Your task to perform on an android device: set an alarm Image 0: 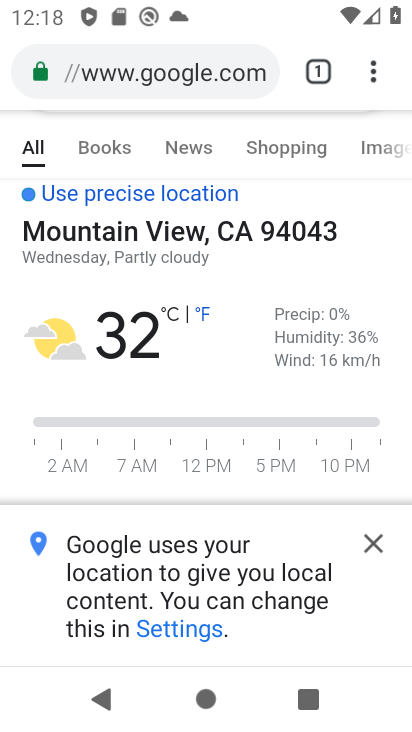
Step 0: press home button
Your task to perform on an android device: set an alarm Image 1: 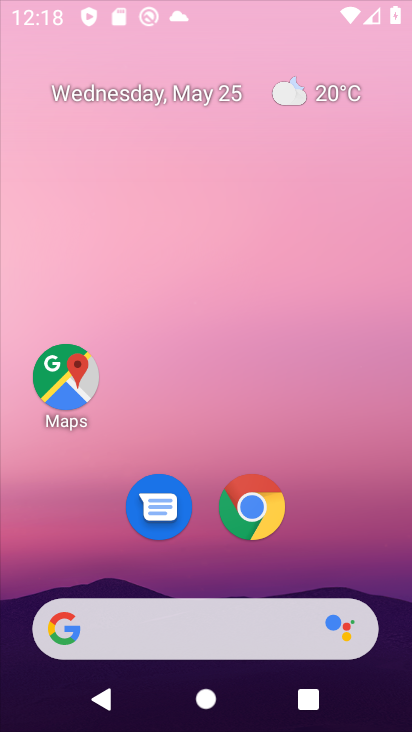
Step 1: click (311, 188)
Your task to perform on an android device: set an alarm Image 2: 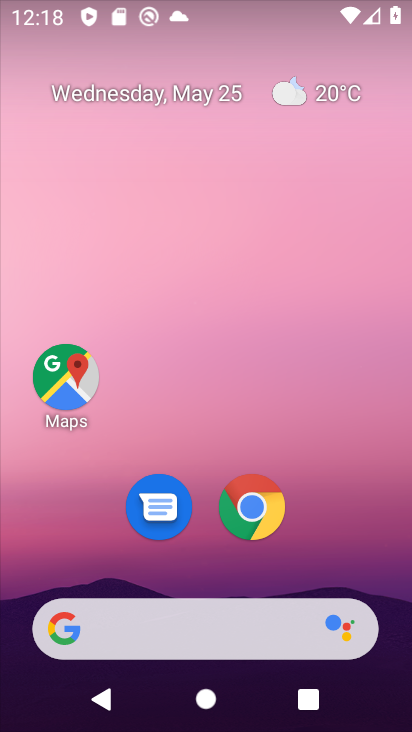
Step 2: drag from (371, 587) to (300, 176)
Your task to perform on an android device: set an alarm Image 3: 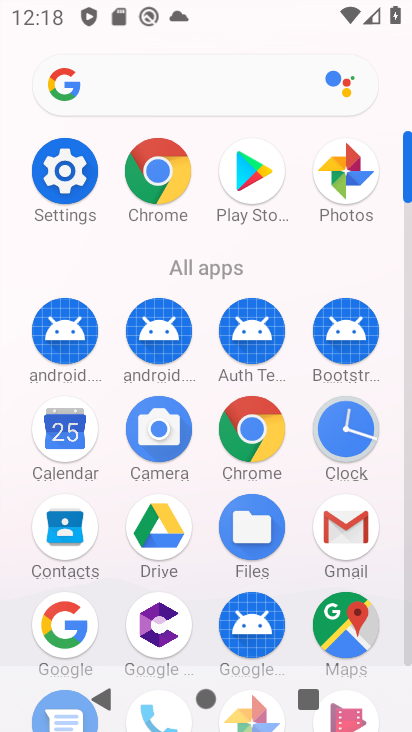
Step 3: click (339, 447)
Your task to perform on an android device: set an alarm Image 4: 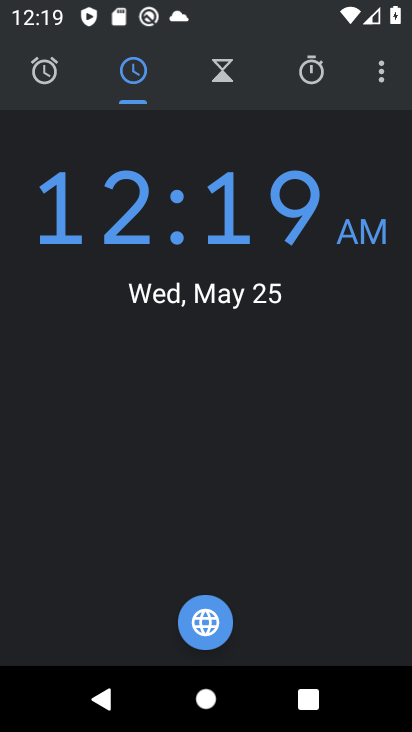
Step 4: click (42, 88)
Your task to perform on an android device: set an alarm Image 5: 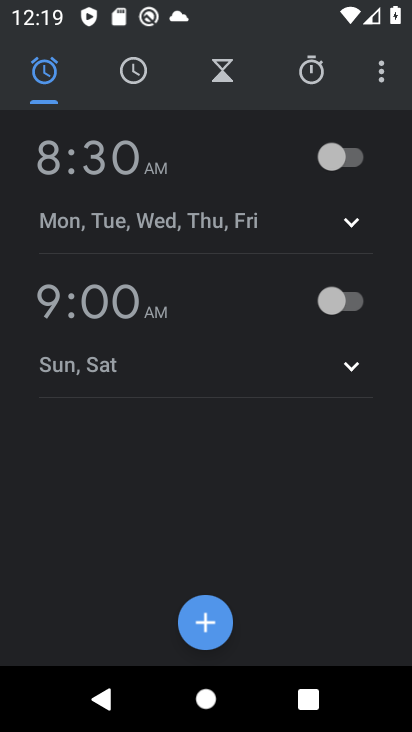
Step 5: click (194, 623)
Your task to perform on an android device: set an alarm Image 6: 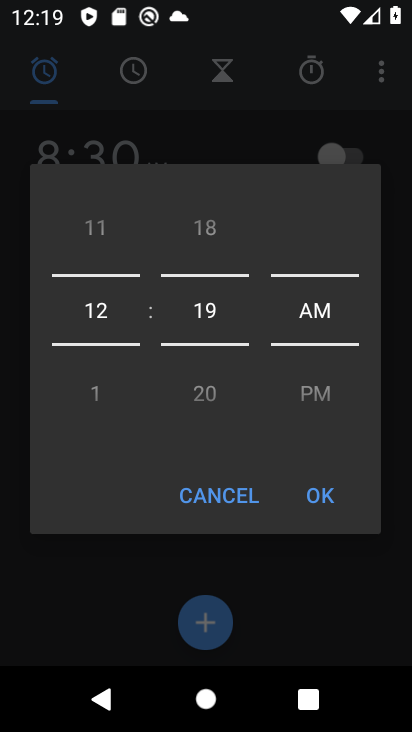
Step 6: click (338, 494)
Your task to perform on an android device: set an alarm Image 7: 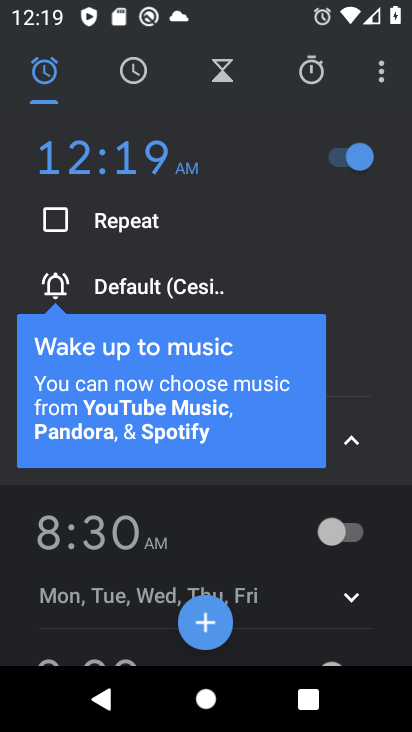
Step 7: task complete